Your task to perform on an android device: Go to settings Image 0: 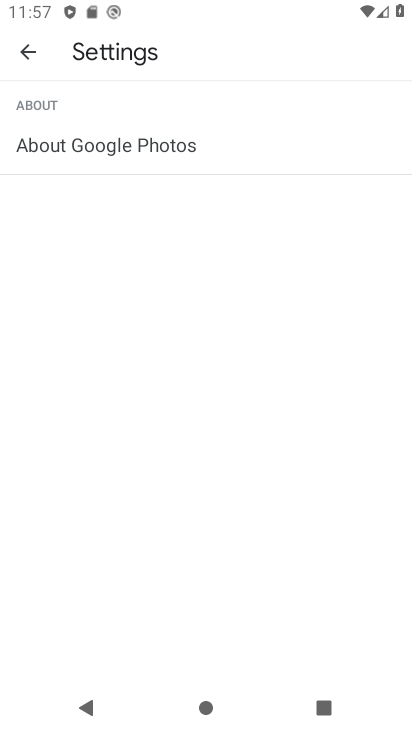
Step 0: press home button
Your task to perform on an android device: Go to settings Image 1: 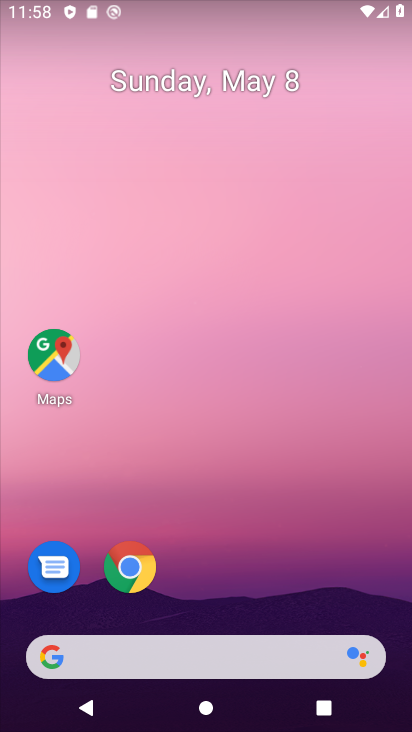
Step 1: drag from (229, 727) to (241, 81)
Your task to perform on an android device: Go to settings Image 2: 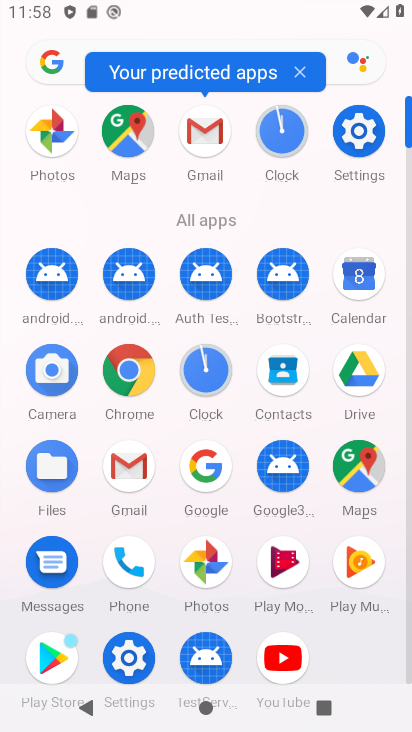
Step 2: click (354, 120)
Your task to perform on an android device: Go to settings Image 3: 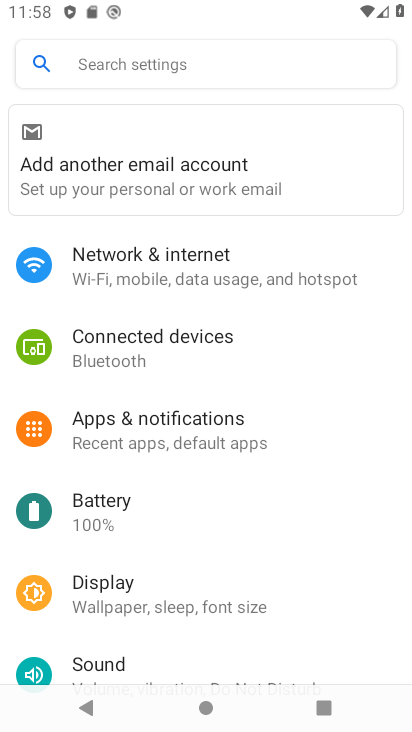
Step 3: task complete